Your task to perform on an android device: delete a single message in the gmail app Image 0: 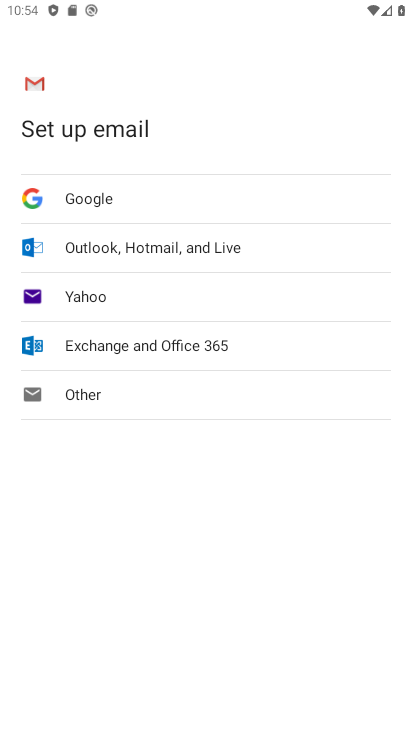
Step 0: press home button
Your task to perform on an android device: delete a single message in the gmail app Image 1: 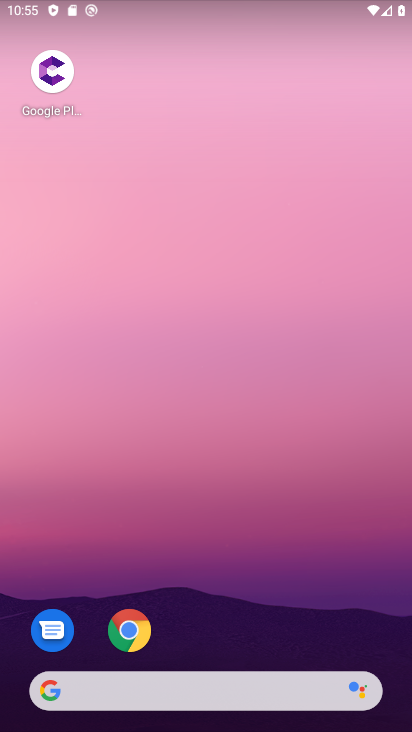
Step 1: drag from (220, 616) to (152, 94)
Your task to perform on an android device: delete a single message in the gmail app Image 2: 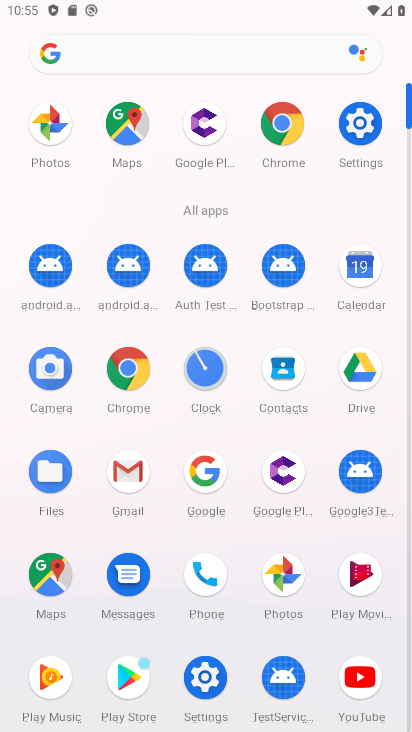
Step 2: click (130, 472)
Your task to perform on an android device: delete a single message in the gmail app Image 3: 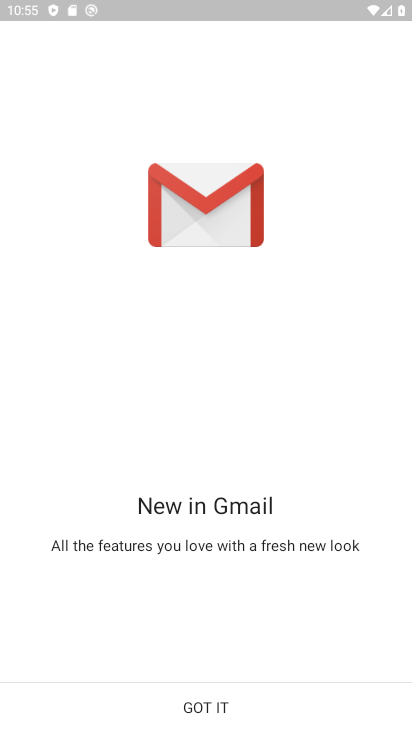
Step 3: click (200, 703)
Your task to perform on an android device: delete a single message in the gmail app Image 4: 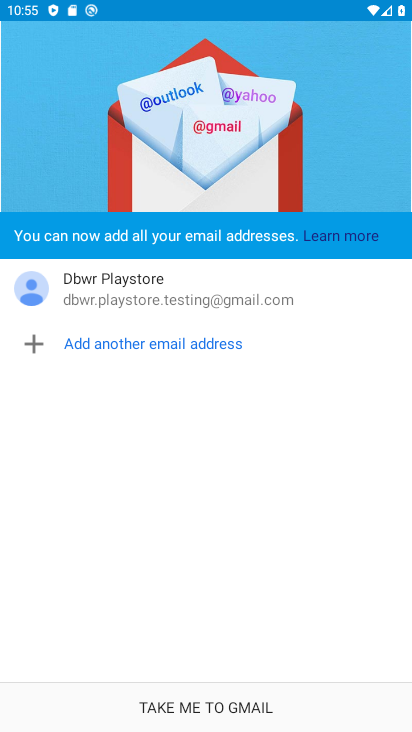
Step 4: click (200, 703)
Your task to perform on an android device: delete a single message in the gmail app Image 5: 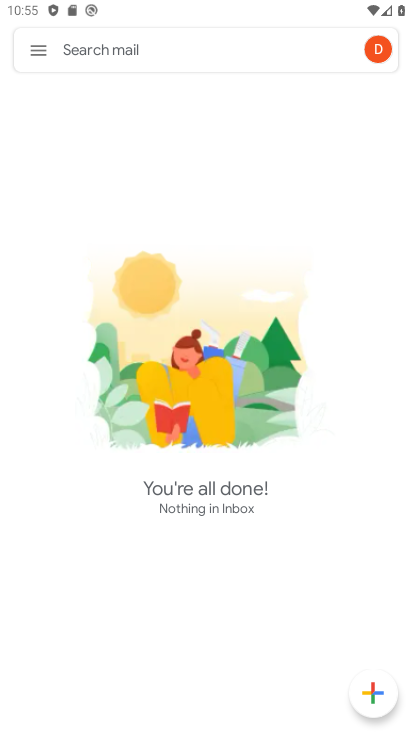
Step 5: click (33, 52)
Your task to perform on an android device: delete a single message in the gmail app Image 6: 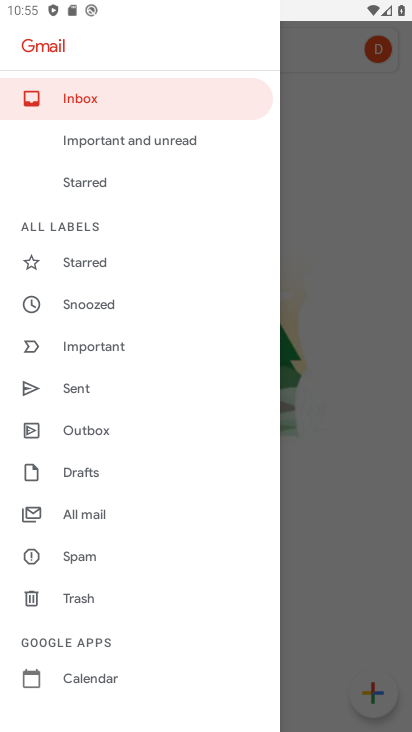
Step 6: click (86, 516)
Your task to perform on an android device: delete a single message in the gmail app Image 7: 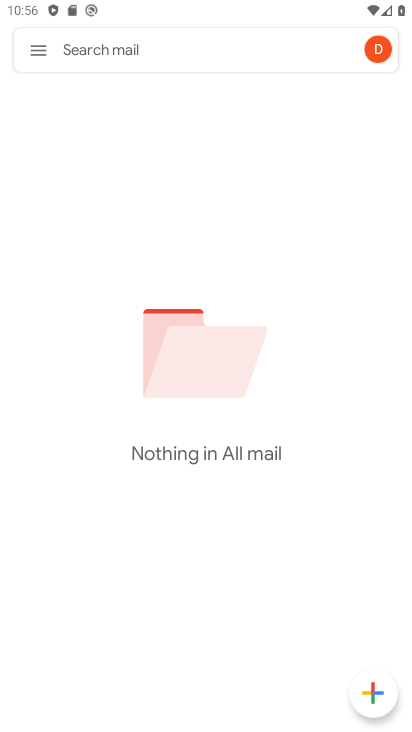
Step 7: task complete